Your task to perform on an android device: Go to Maps Image 0: 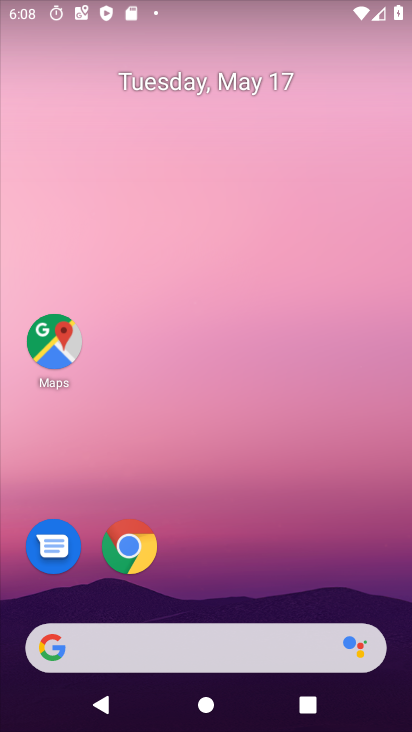
Step 0: click (45, 341)
Your task to perform on an android device: Go to Maps Image 1: 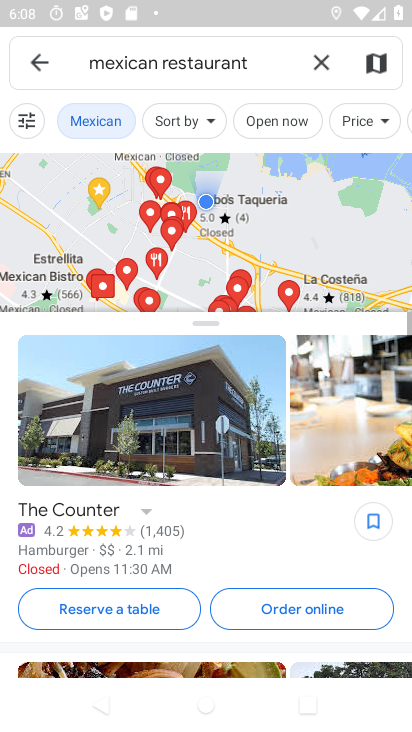
Step 1: click (316, 62)
Your task to perform on an android device: Go to Maps Image 2: 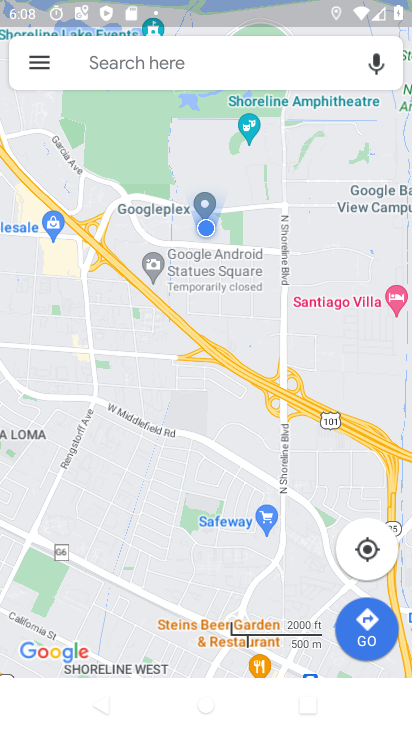
Step 2: click (200, 76)
Your task to perform on an android device: Go to Maps Image 3: 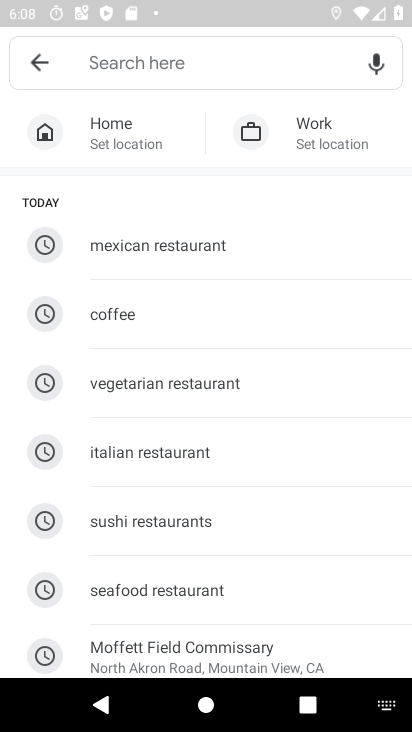
Step 3: click (167, 525)
Your task to perform on an android device: Go to Maps Image 4: 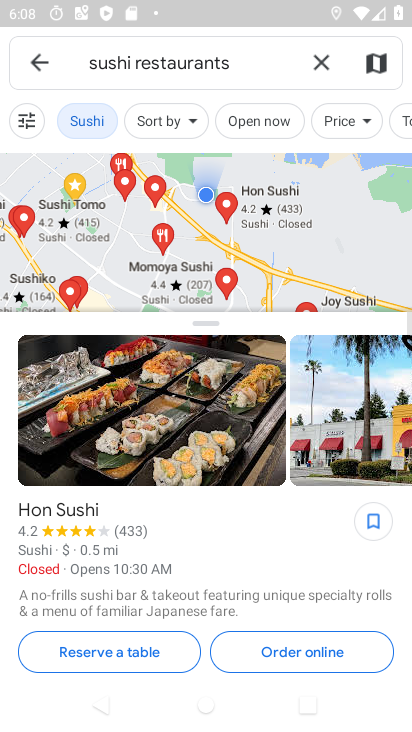
Step 4: task complete